Your task to perform on an android device: turn smart compose on in the gmail app Image 0: 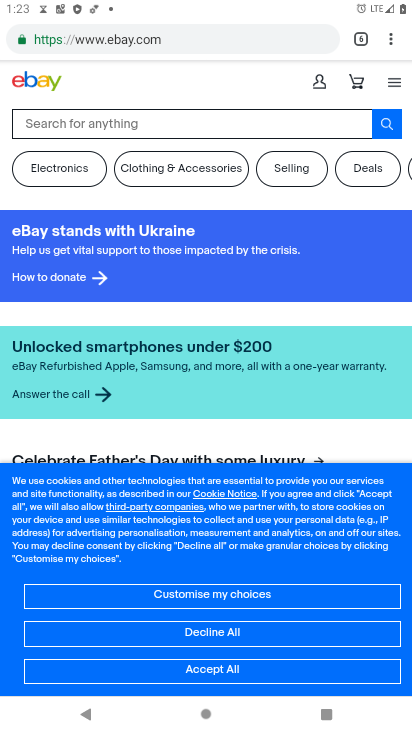
Step 0: press home button
Your task to perform on an android device: turn smart compose on in the gmail app Image 1: 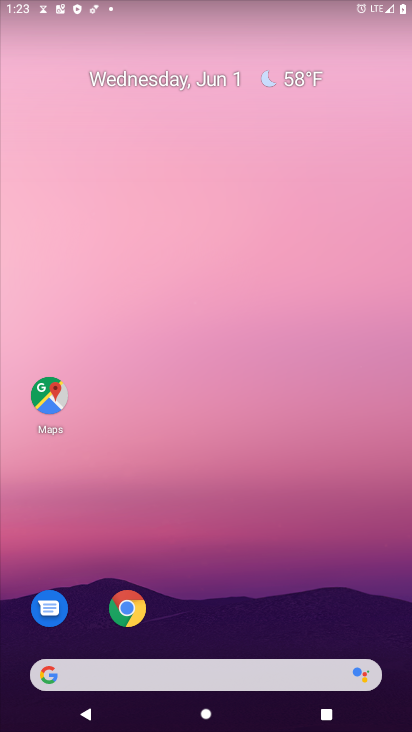
Step 1: drag from (290, 521) to (200, 14)
Your task to perform on an android device: turn smart compose on in the gmail app Image 2: 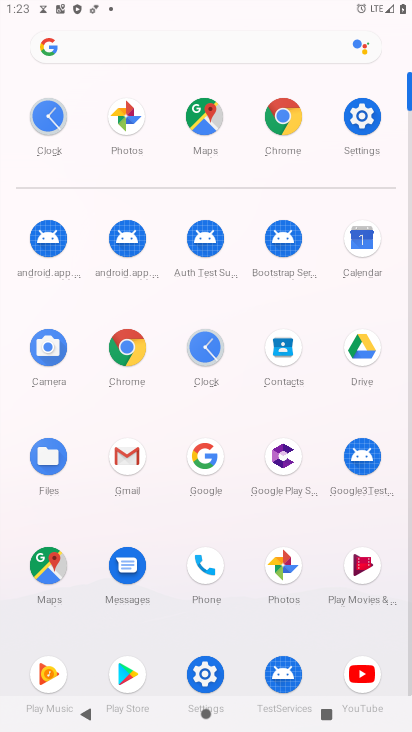
Step 2: click (143, 459)
Your task to perform on an android device: turn smart compose on in the gmail app Image 3: 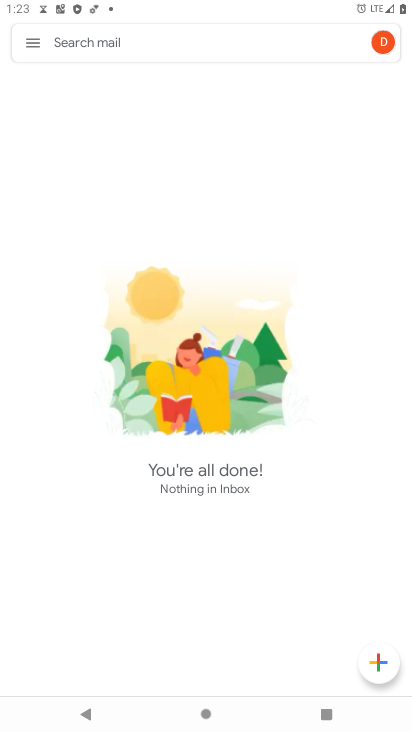
Step 3: click (27, 49)
Your task to perform on an android device: turn smart compose on in the gmail app Image 4: 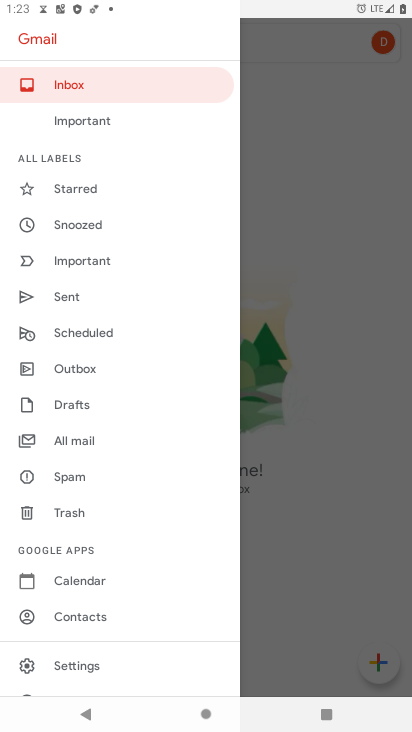
Step 4: click (95, 660)
Your task to perform on an android device: turn smart compose on in the gmail app Image 5: 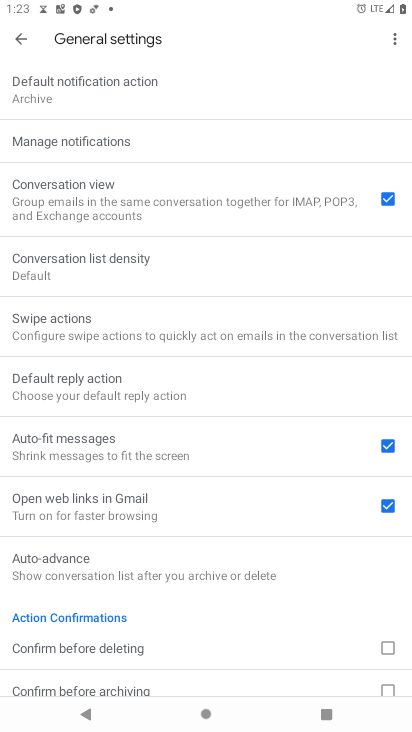
Step 5: drag from (170, 624) to (194, 103)
Your task to perform on an android device: turn smart compose on in the gmail app Image 6: 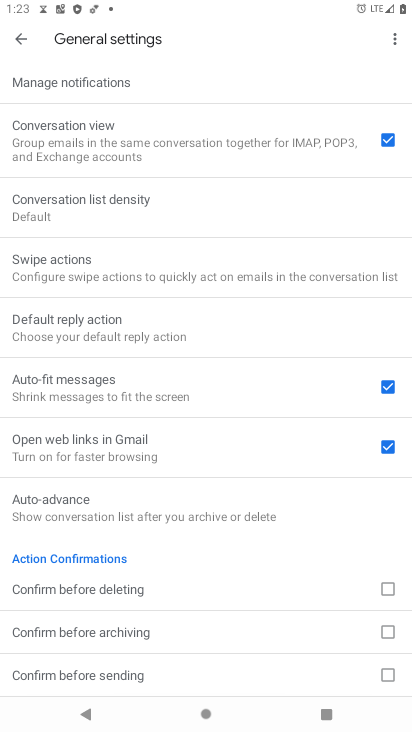
Step 6: drag from (185, 181) to (172, 616)
Your task to perform on an android device: turn smart compose on in the gmail app Image 7: 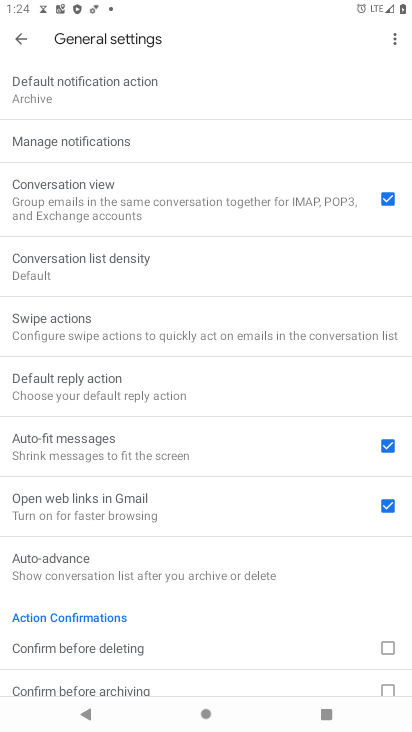
Step 7: drag from (149, 179) to (148, 614)
Your task to perform on an android device: turn smart compose on in the gmail app Image 8: 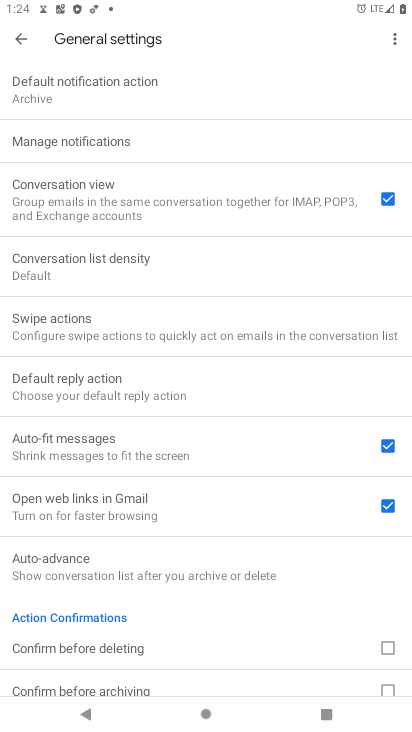
Step 8: drag from (192, 580) to (233, 200)
Your task to perform on an android device: turn smart compose on in the gmail app Image 9: 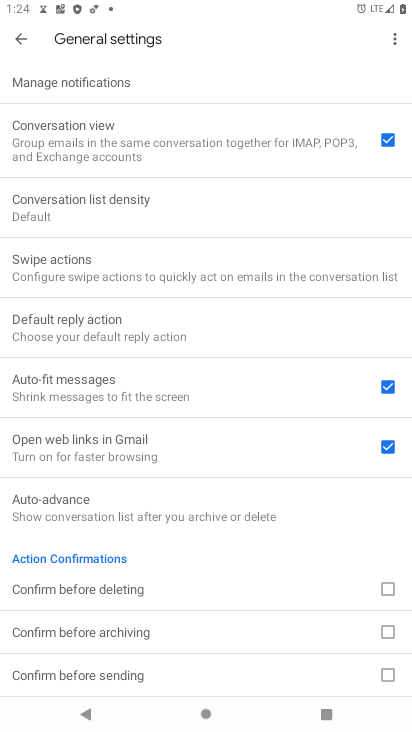
Step 9: drag from (82, 205) to (107, 676)
Your task to perform on an android device: turn smart compose on in the gmail app Image 10: 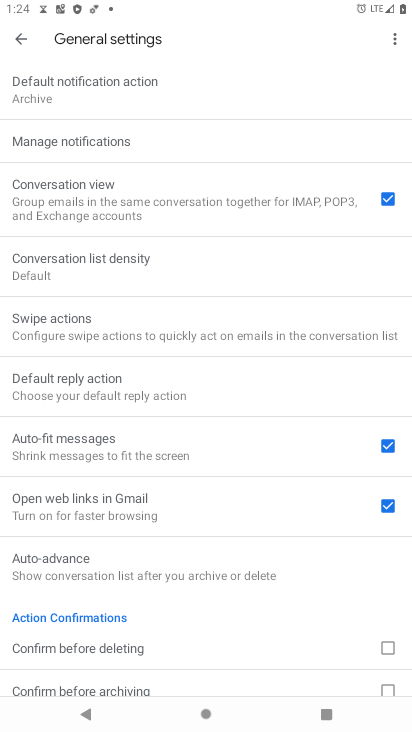
Step 10: click (127, 91)
Your task to perform on an android device: turn smart compose on in the gmail app Image 11: 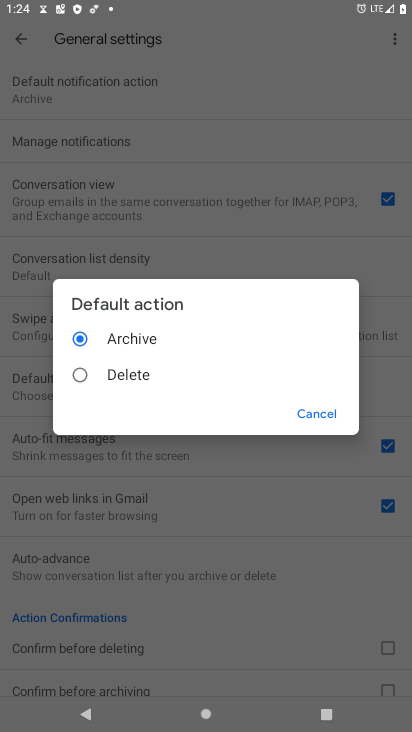
Step 11: click (314, 407)
Your task to perform on an android device: turn smart compose on in the gmail app Image 12: 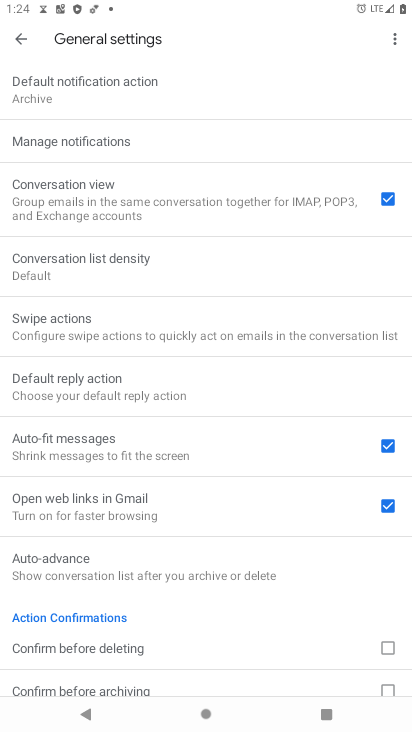
Step 12: click (401, 30)
Your task to perform on an android device: turn smart compose on in the gmail app Image 13: 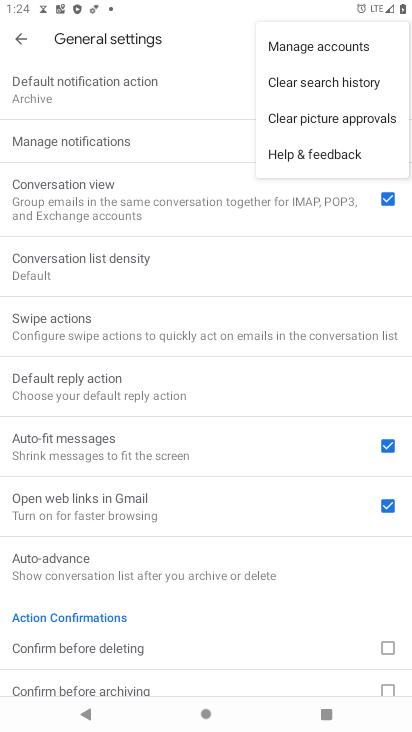
Step 13: click (203, 557)
Your task to perform on an android device: turn smart compose on in the gmail app Image 14: 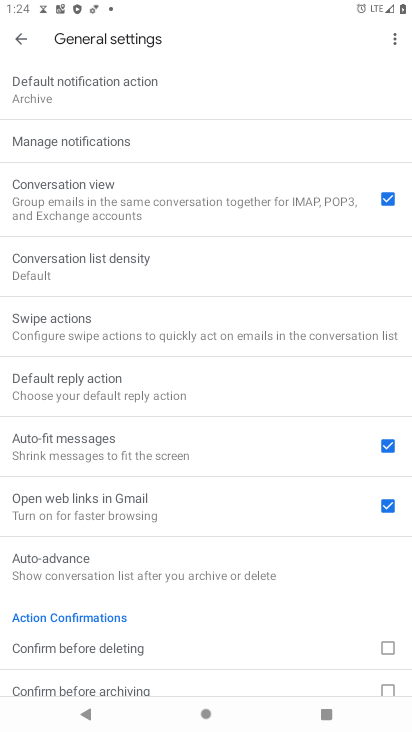
Step 14: task complete